Your task to perform on an android device: Open accessibility settings Image 0: 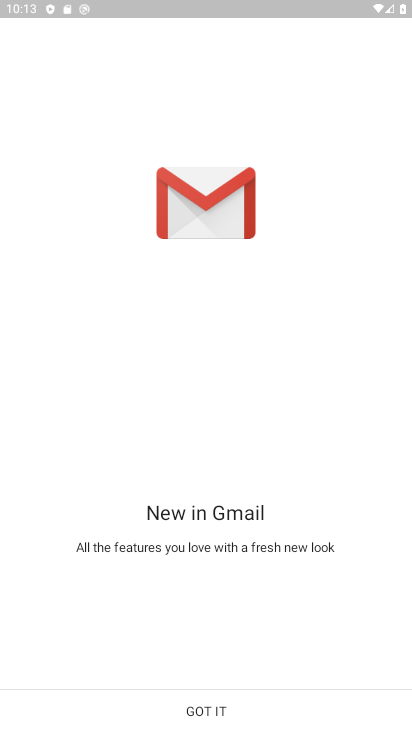
Step 0: press home button
Your task to perform on an android device: Open accessibility settings Image 1: 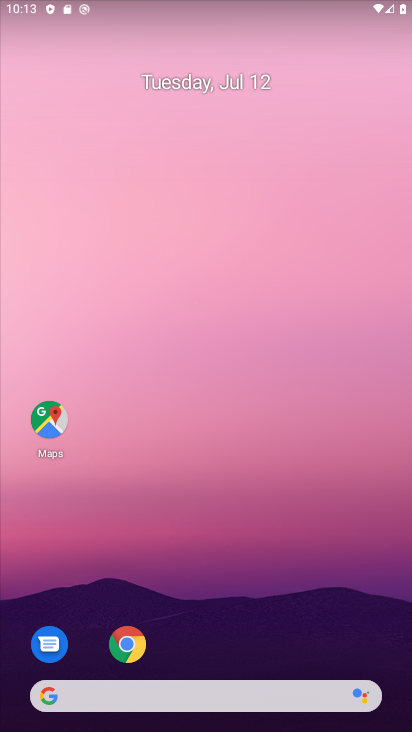
Step 1: drag from (279, 673) to (238, 340)
Your task to perform on an android device: Open accessibility settings Image 2: 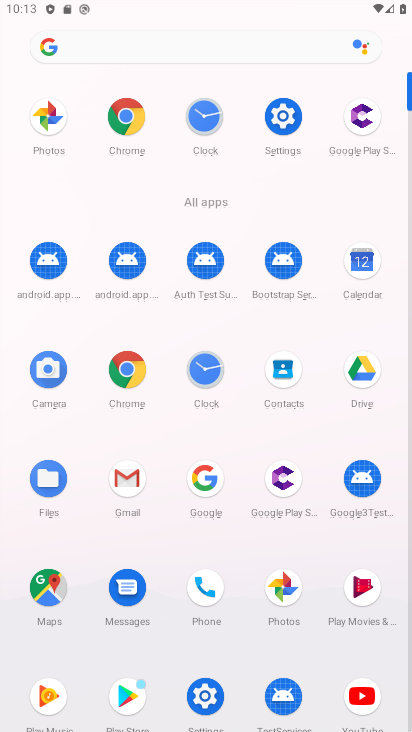
Step 2: click (274, 121)
Your task to perform on an android device: Open accessibility settings Image 3: 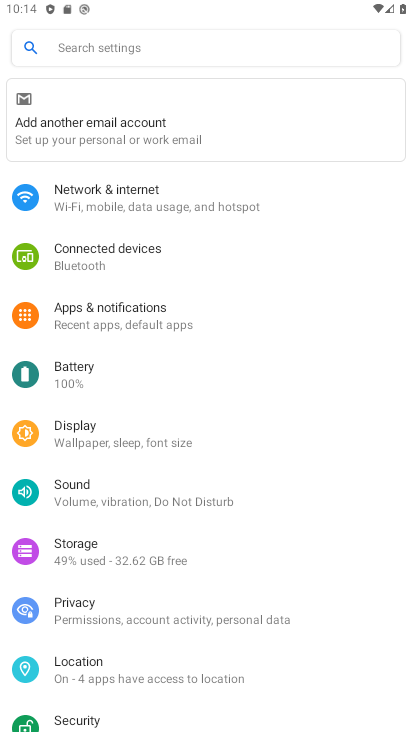
Step 3: drag from (115, 663) to (139, 265)
Your task to perform on an android device: Open accessibility settings Image 4: 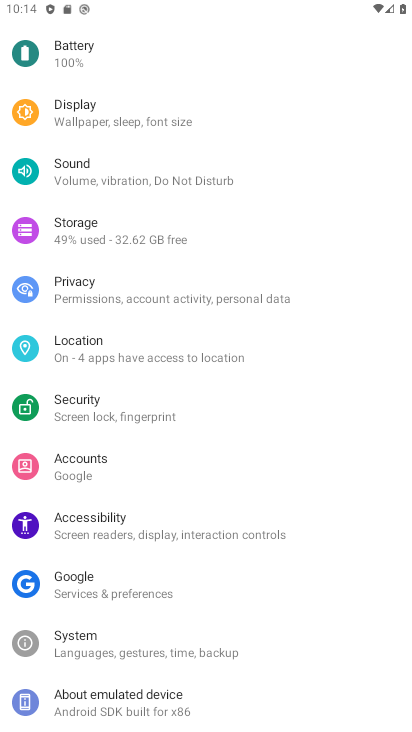
Step 4: drag from (129, 683) to (124, 361)
Your task to perform on an android device: Open accessibility settings Image 5: 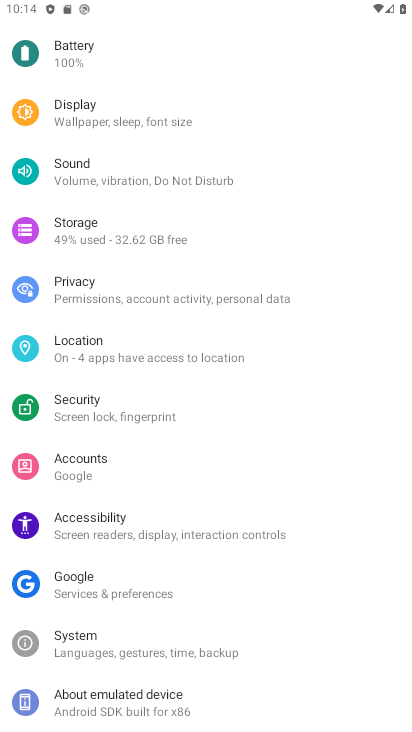
Step 5: click (100, 526)
Your task to perform on an android device: Open accessibility settings Image 6: 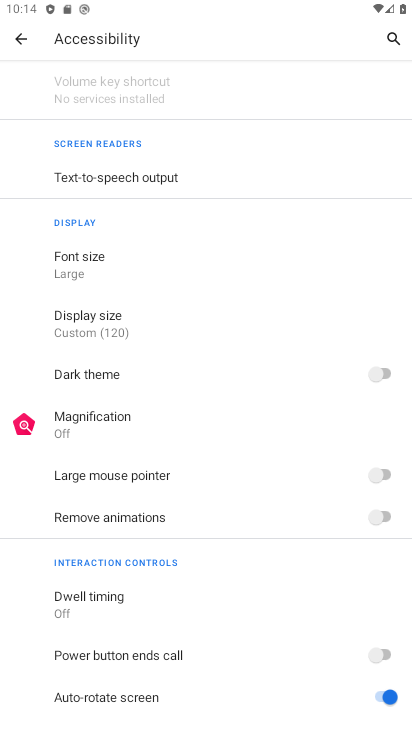
Step 6: task complete